Your task to perform on an android device: turn off notifications settings in the gmail app Image 0: 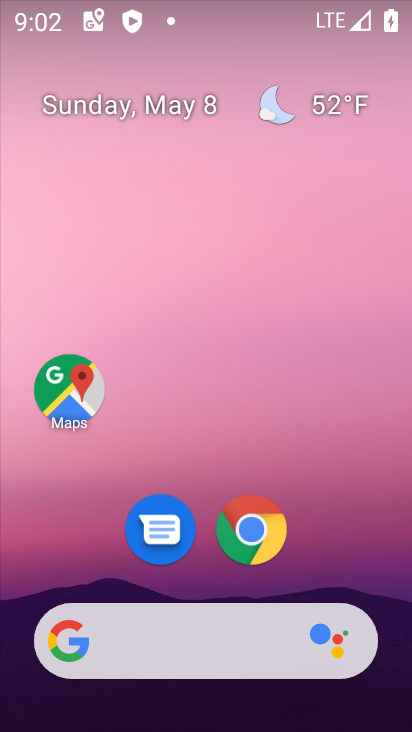
Step 0: drag from (359, 553) to (367, 101)
Your task to perform on an android device: turn off notifications settings in the gmail app Image 1: 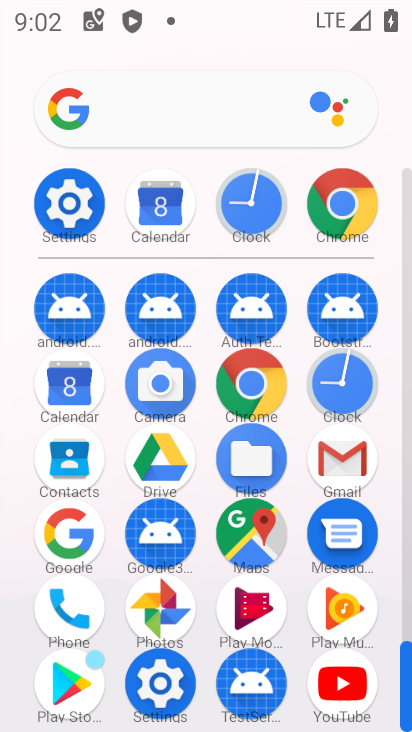
Step 1: click (168, 682)
Your task to perform on an android device: turn off notifications settings in the gmail app Image 2: 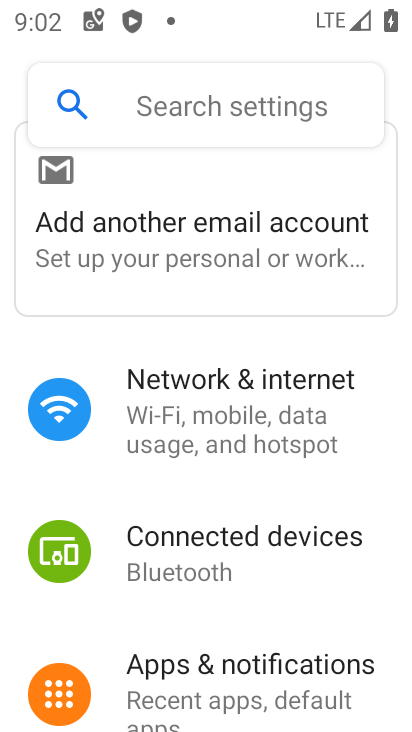
Step 2: drag from (307, 616) to (342, 387)
Your task to perform on an android device: turn off notifications settings in the gmail app Image 3: 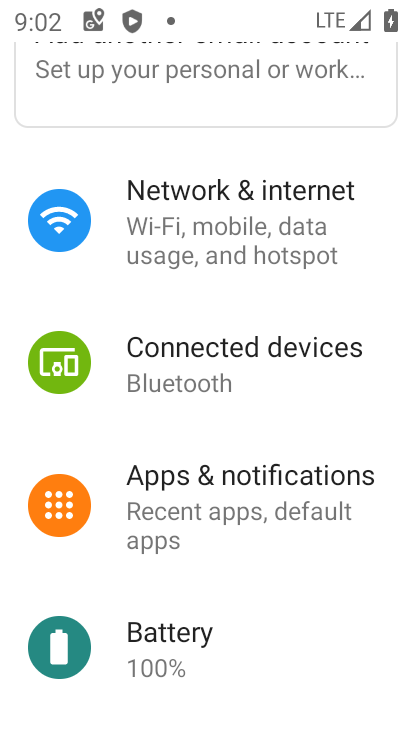
Step 3: click (314, 499)
Your task to perform on an android device: turn off notifications settings in the gmail app Image 4: 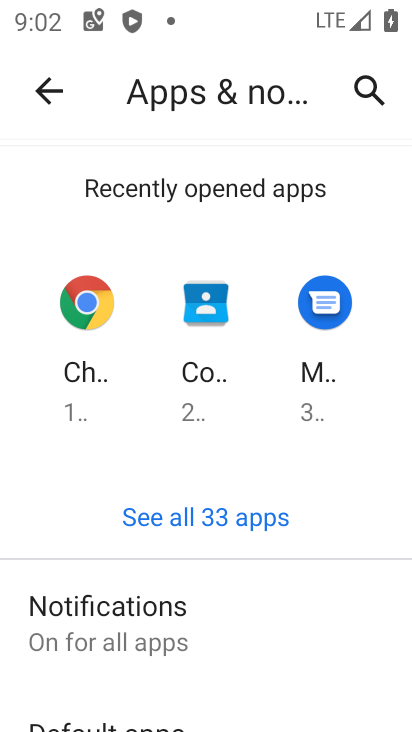
Step 4: drag from (278, 654) to (329, 385)
Your task to perform on an android device: turn off notifications settings in the gmail app Image 5: 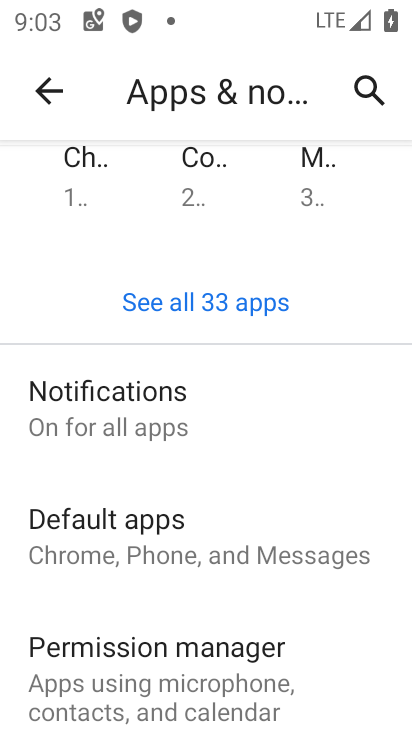
Step 5: click (72, 405)
Your task to perform on an android device: turn off notifications settings in the gmail app Image 6: 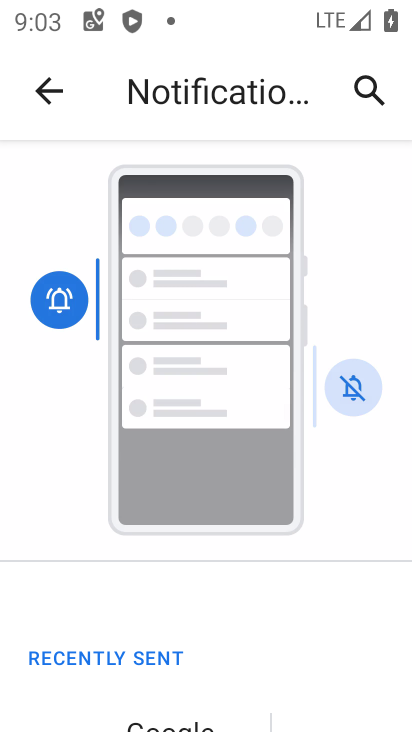
Step 6: drag from (264, 619) to (290, 254)
Your task to perform on an android device: turn off notifications settings in the gmail app Image 7: 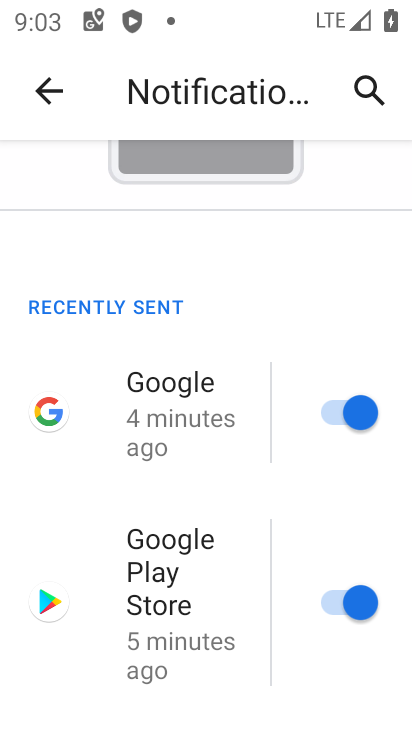
Step 7: drag from (257, 604) to (250, 350)
Your task to perform on an android device: turn off notifications settings in the gmail app Image 8: 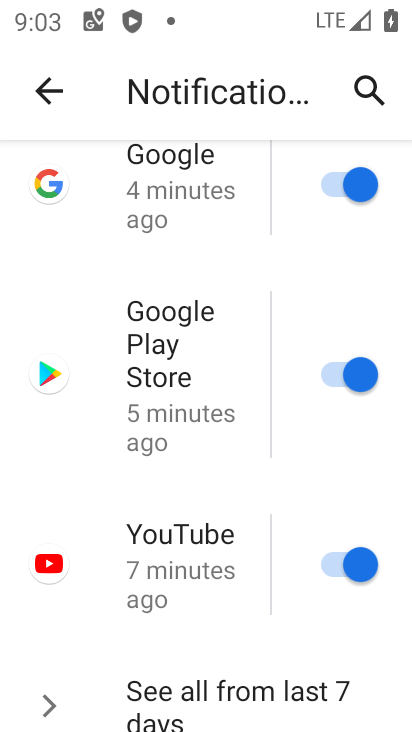
Step 8: drag from (209, 616) to (280, 224)
Your task to perform on an android device: turn off notifications settings in the gmail app Image 9: 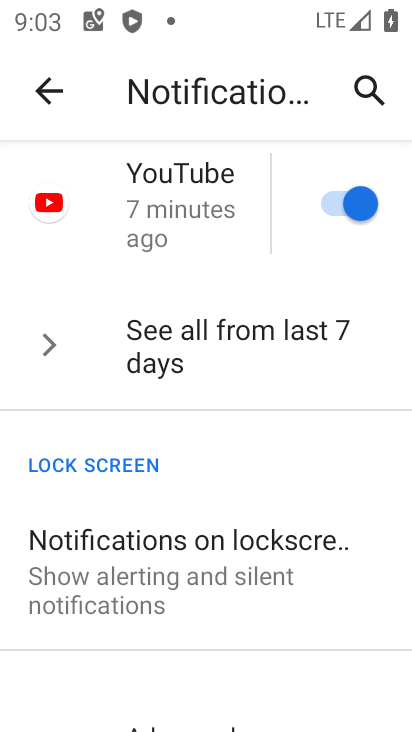
Step 9: drag from (232, 606) to (200, 404)
Your task to perform on an android device: turn off notifications settings in the gmail app Image 10: 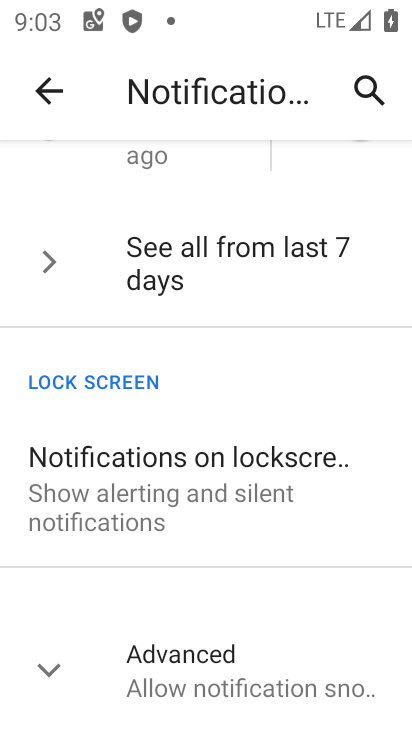
Step 10: click (57, 673)
Your task to perform on an android device: turn off notifications settings in the gmail app Image 11: 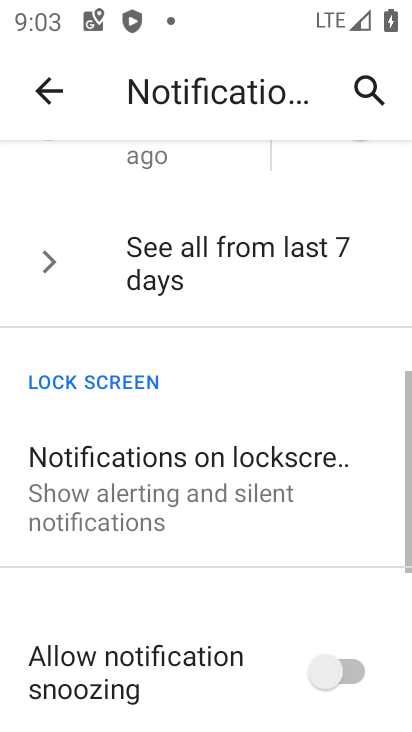
Step 11: task complete